Your task to perform on an android device: turn off improve location accuracy Image 0: 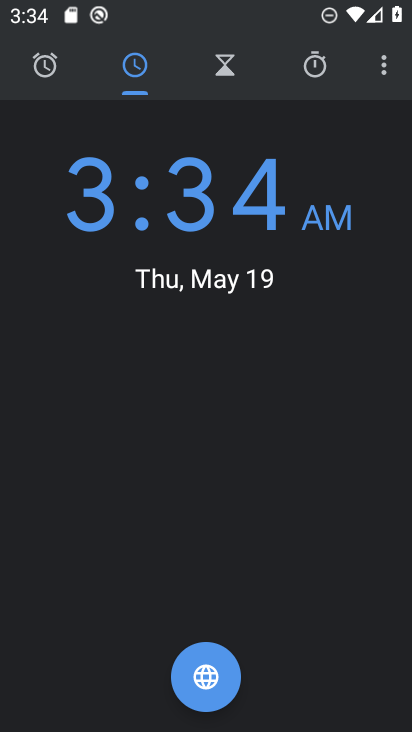
Step 0: press home button
Your task to perform on an android device: turn off improve location accuracy Image 1: 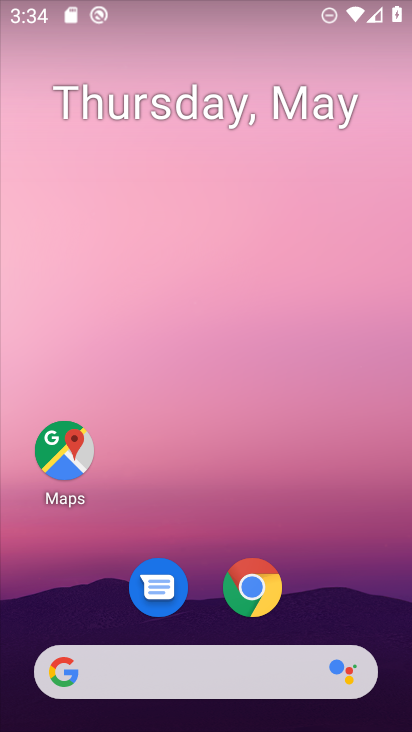
Step 1: drag from (374, 577) to (367, 171)
Your task to perform on an android device: turn off improve location accuracy Image 2: 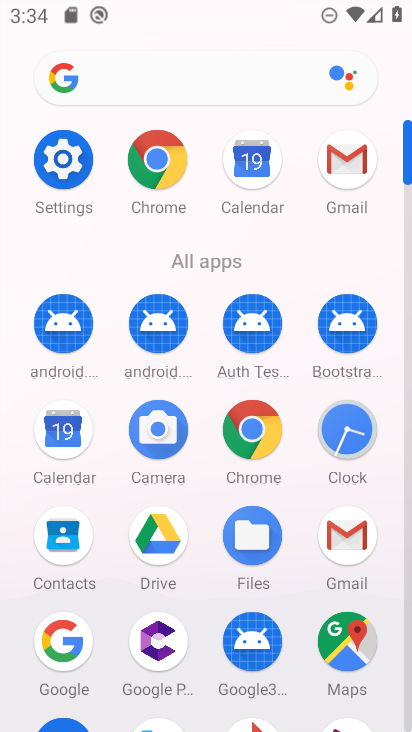
Step 2: click (69, 180)
Your task to perform on an android device: turn off improve location accuracy Image 3: 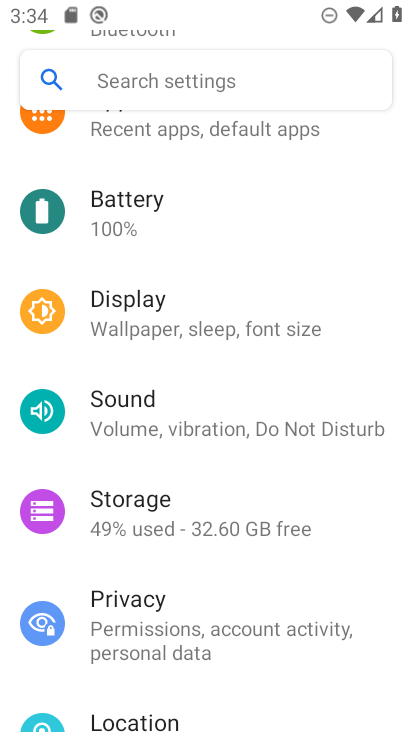
Step 3: drag from (351, 298) to (351, 401)
Your task to perform on an android device: turn off improve location accuracy Image 4: 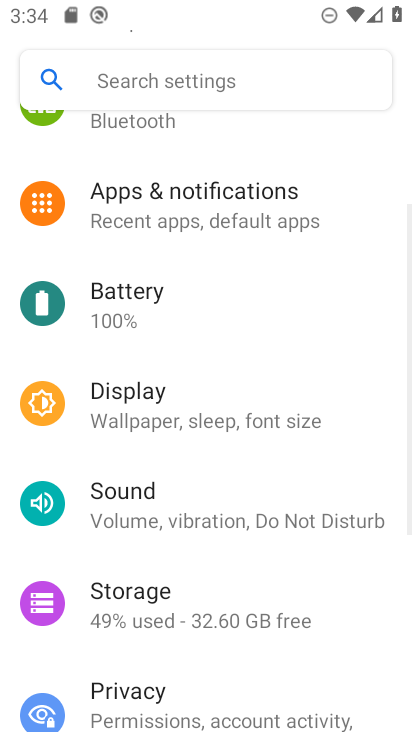
Step 4: drag from (343, 240) to (342, 380)
Your task to perform on an android device: turn off improve location accuracy Image 5: 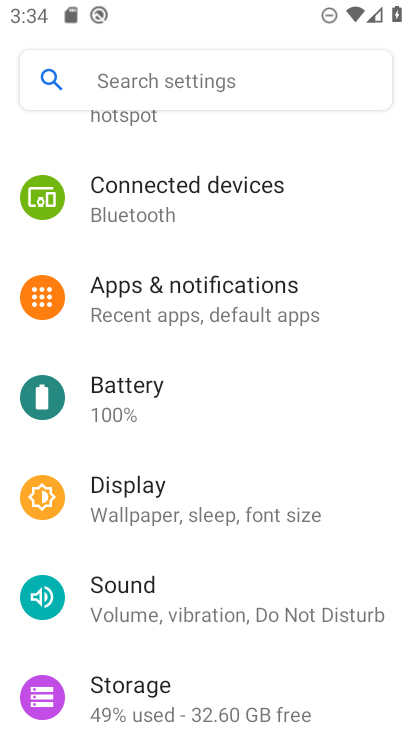
Step 5: drag from (353, 212) to (344, 393)
Your task to perform on an android device: turn off improve location accuracy Image 6: 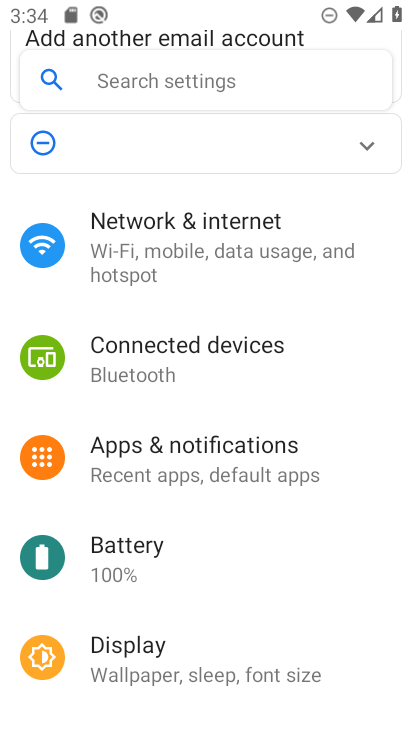
Step 6: drag from (352, 208) to (355, 415)
Your task to perform on an android device: turn off improve location accuracy Image 7: 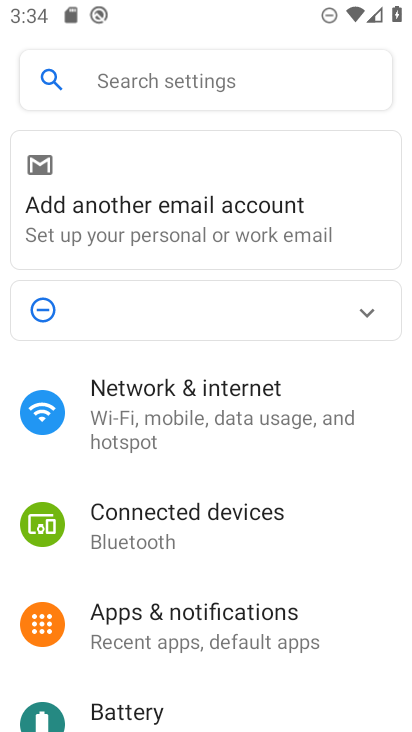
Step 7: drag from (340, 463) to (336, 330)
Your task to perform on an android device: turn off improve location accuracy Image 8: 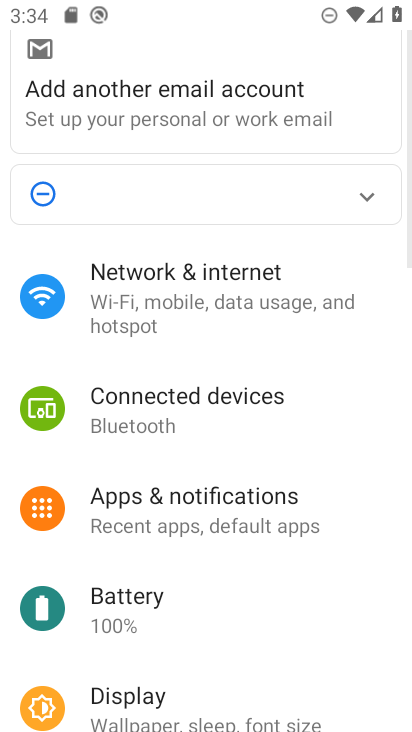
Step 8: drag from (341, 448) to (346, 346)
Your task to perform on an android device: turn off improve location accuracy Image 9: 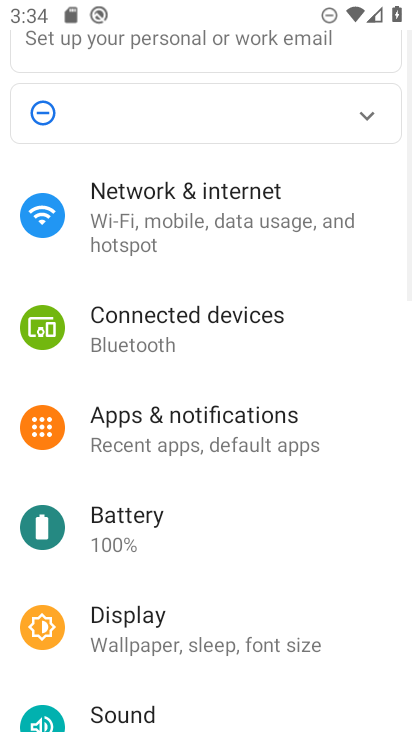
Step 9: drag from (342, 535) to (353, 394)
Your task to perform on an android device: turn off improve location accuracy Image 10: 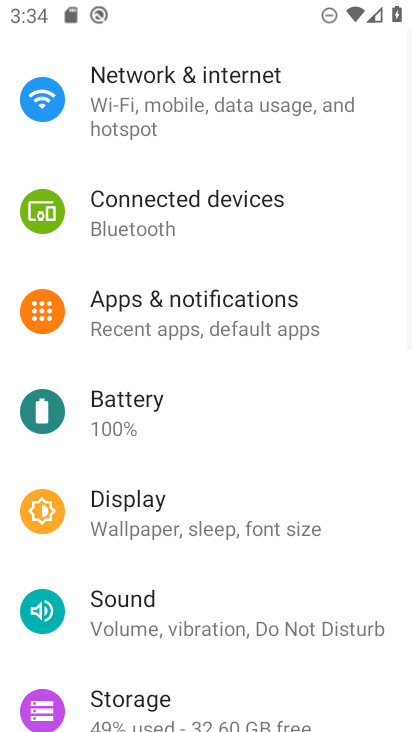
Step 10: drag from (347, 545) to (359, 439)
Your task to perform on an android device: turn off improve location accuracy Image 11: 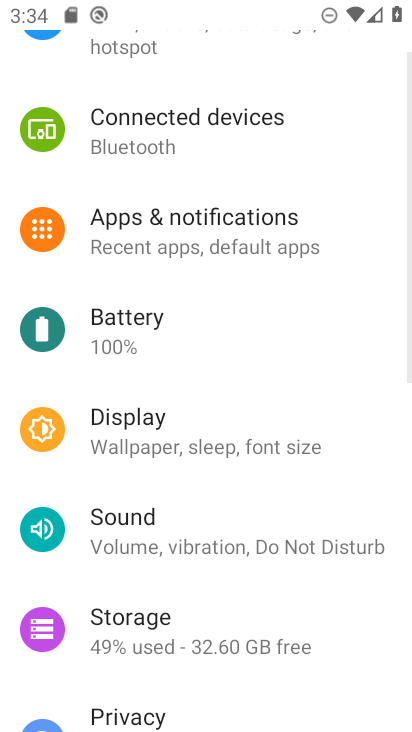
Step 11: drag from (342, 600) to (358, 459)
Your task to perform on an android device: turn off improve location accuracy Image 12: 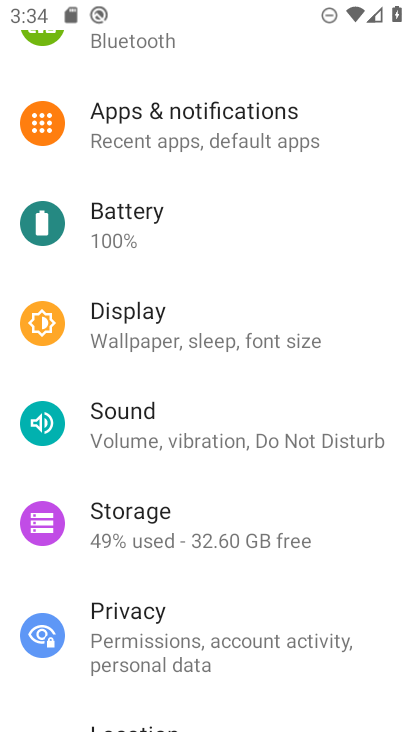
Step 12: drag from (357, 610) to (360, 520)
Your task to perform on an android device: turn off improve location accuracy Image 13: 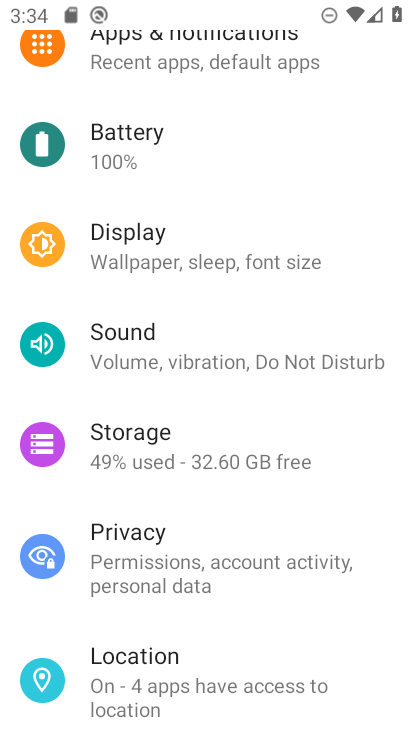
Step 13: drag from (342, 621) to (348, 473)
Your task to perform on an android device: turn off improve location accuracy Image 14: 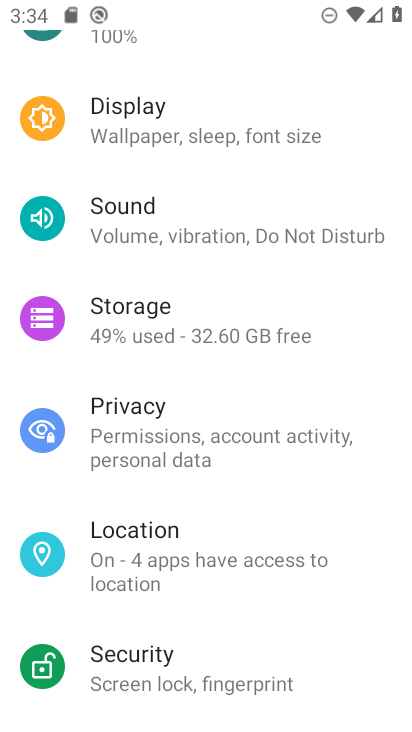
Step 14: click (313, 580)
Your task to perform on an android device: turn off improve location accuracy Image 15: 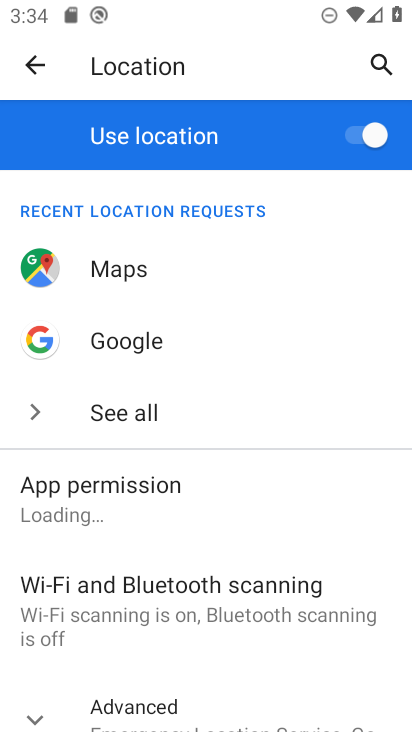
Step 15: drag from (315, 630) to (322, 464)
Your task to perform on an android device: turn off improve location accuracy Image 16: 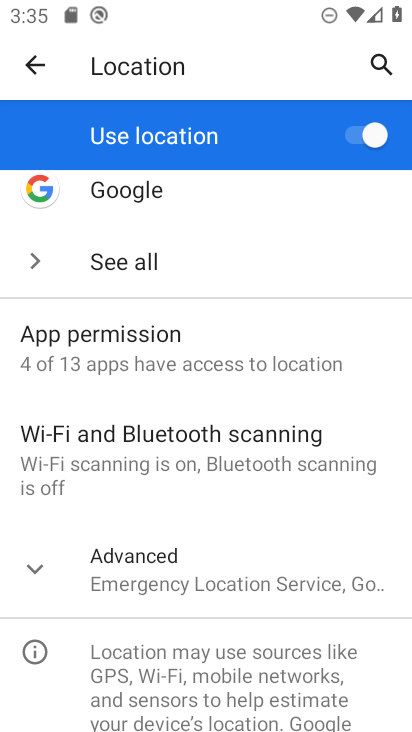
Step 16: click (307, 597)
Your task to perform on an android device: turn off improve location accuracy Image 17: 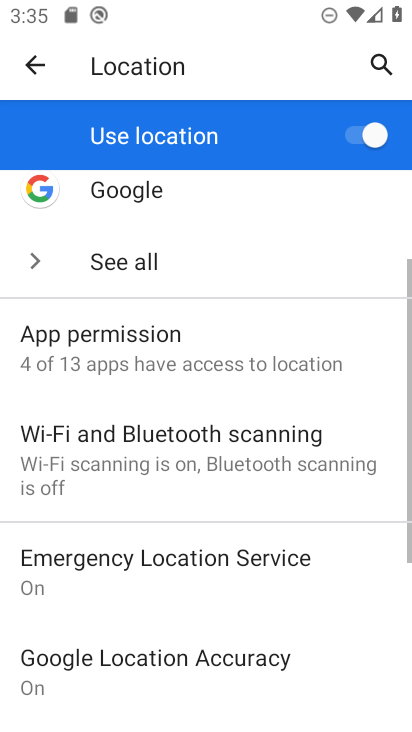
Step 17: drag from (312, 637) to (326, 513)
Your task to perform on an android device: turn off improve location accuracy Image 18: 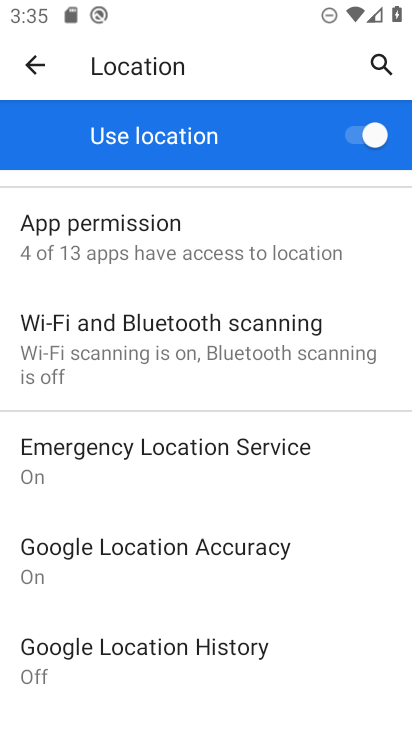
Step 18: drag from (333, 662) to (339, 543)
Your task to perform on an android device: turn off improve location accuracy Image 19: 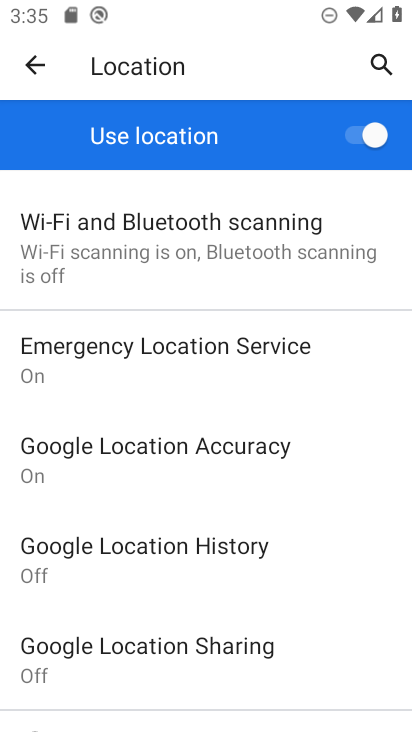
Step 19: drag from (334, 621) to (332, 526)
Your task to perform on an android device: turn off improve location accuracy Image 20: 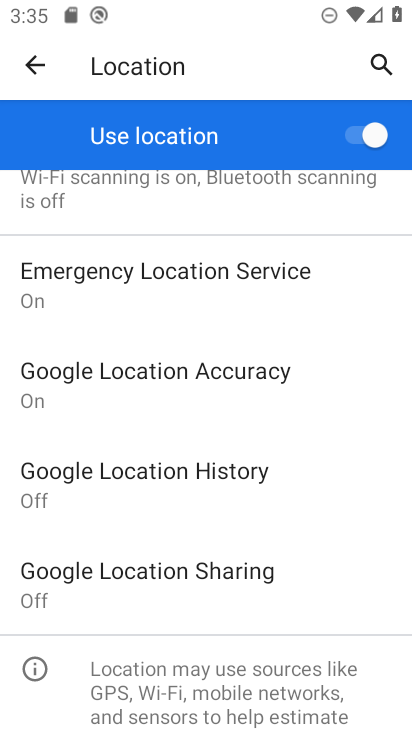
Step 20: click (268, 397)
Your task to perform on an android device: turn off improve location accuracy Image 21: 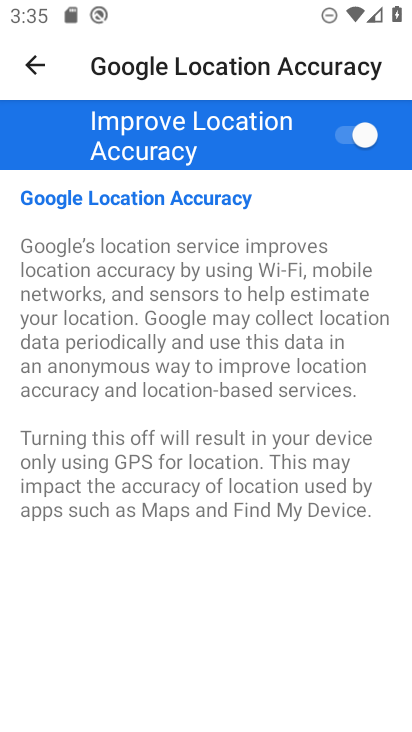
Step 21: click (358, 150)
Your task to perform on an android device: turn off improve location accuracy Image 22: 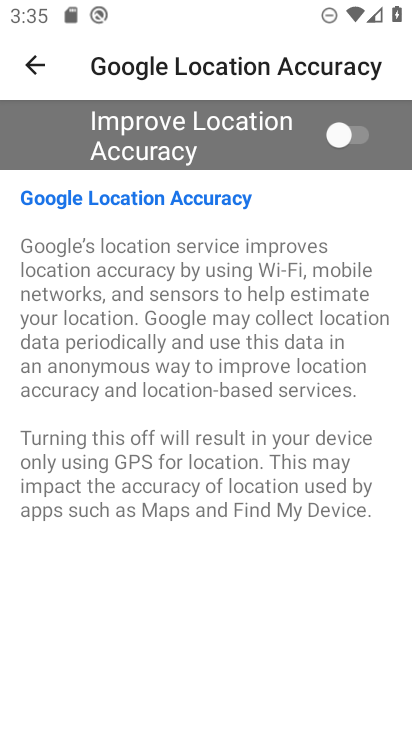
Step 22: task complete